Your task to perform on an android device: Open the calendar and show me this week's events? Image 0: 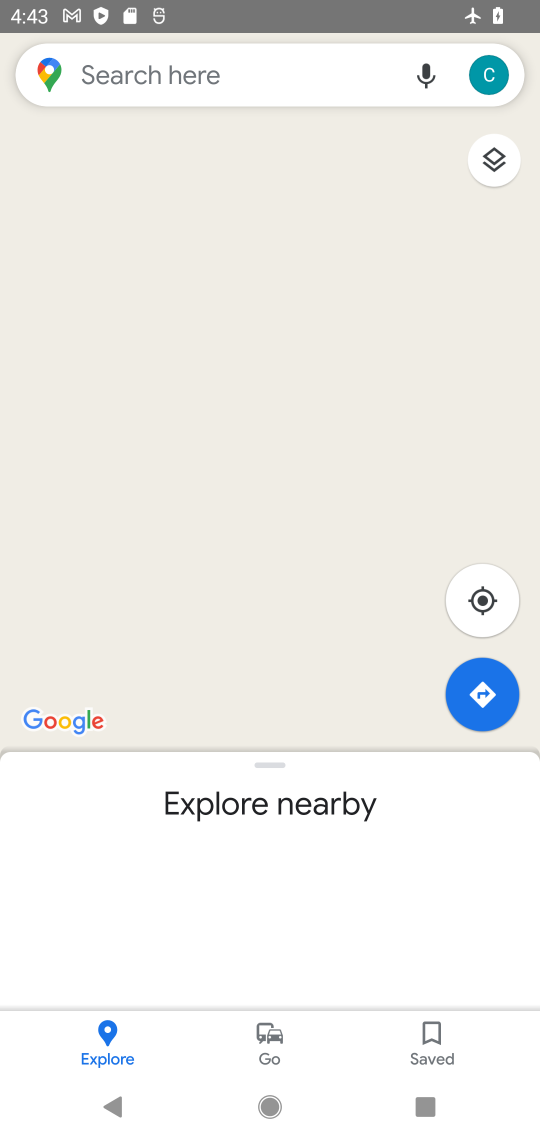
Step 0: press home button
Your task to perform on an android device: Open the calendar and show me this week's events? Image 1: 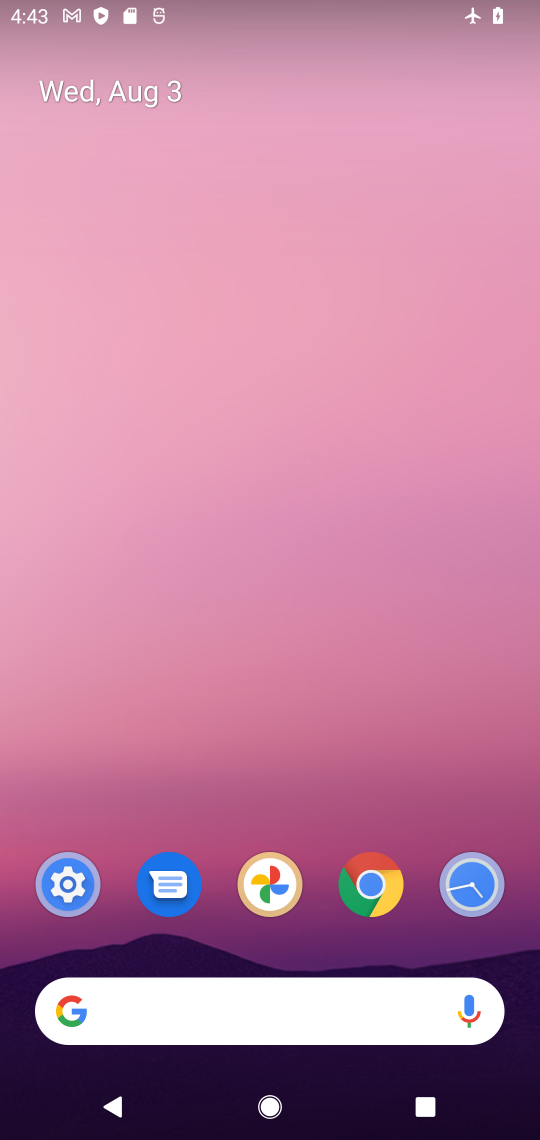
Step 1: drag from (200, 1075) to (222, 112)
Your task to perform on an android device: Open the calendar and show me this week's events? Image 2: 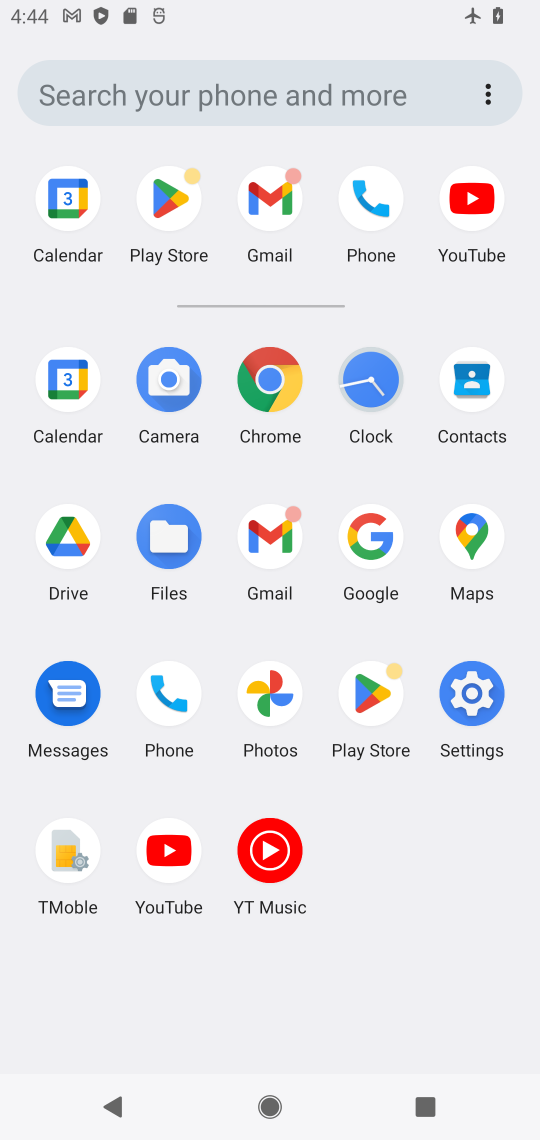
Step 2: click (474, 390)
Your task to perform on an android device: Open the calendar and show me this week's events? Image 3: 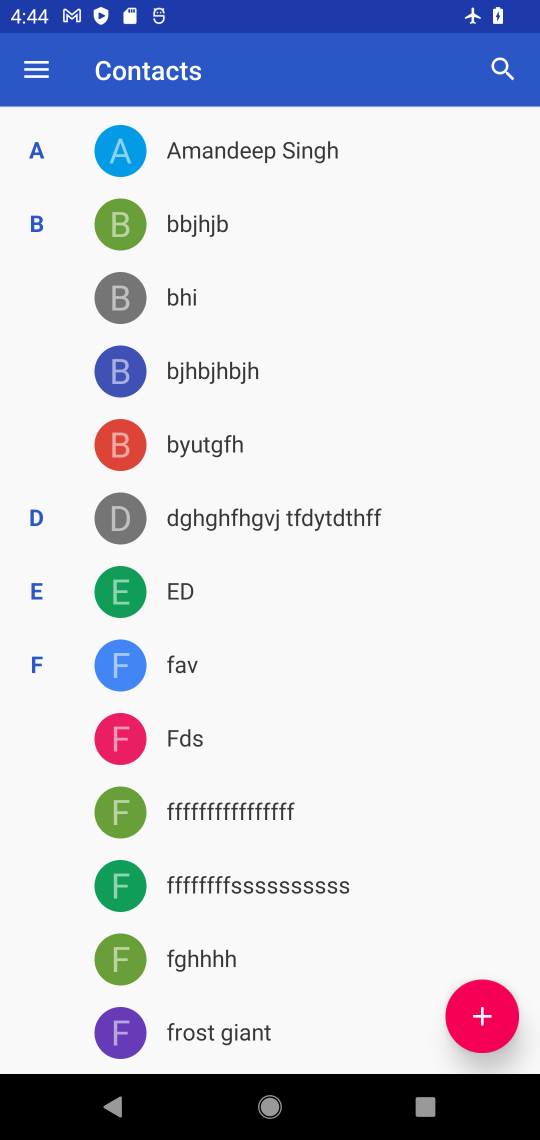
Step 3: press home button
Your task to perform on an android device: Open the calendar and show me this week's events? Image 4: 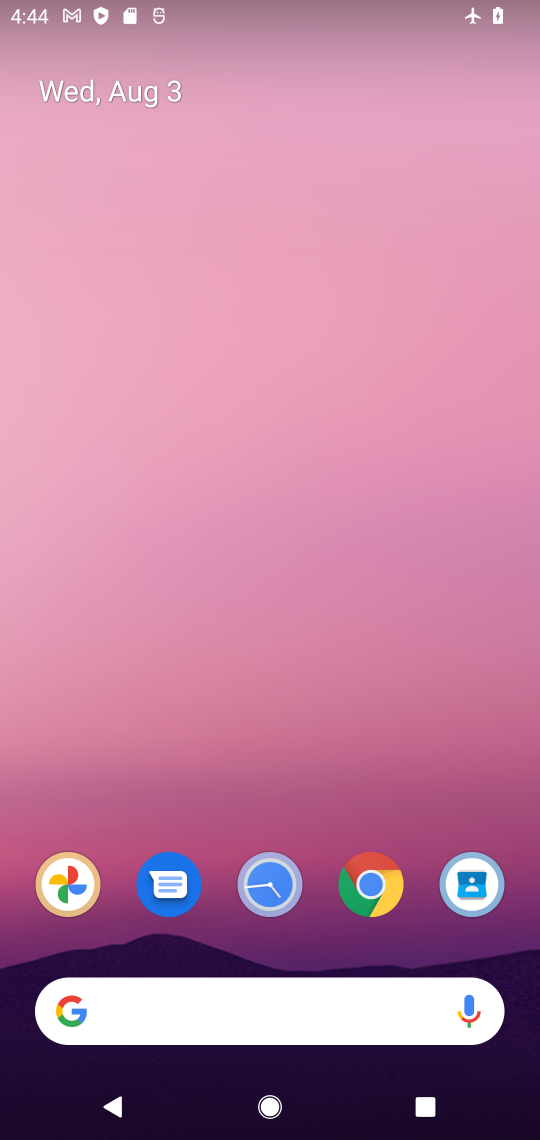
Step 4: drag from (249, 1053) to (329, 140)
Your task to perform on an android device: Open the calendar and show me this week's events? Image 5: 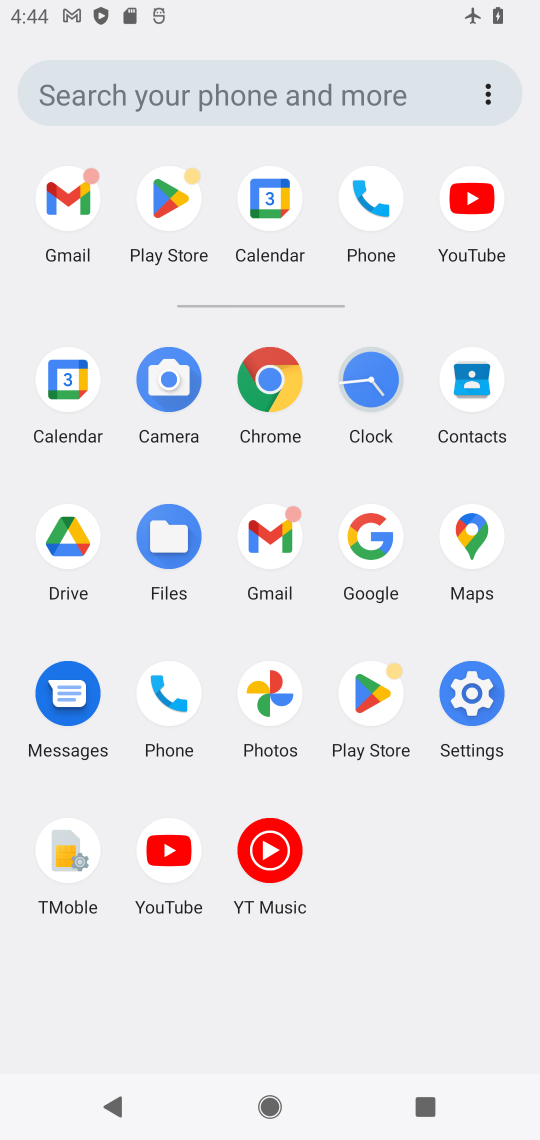
Step 5: click (89, 402)
Your task to perform on an android device: Open the calendar and show me this week's events? Image 6: 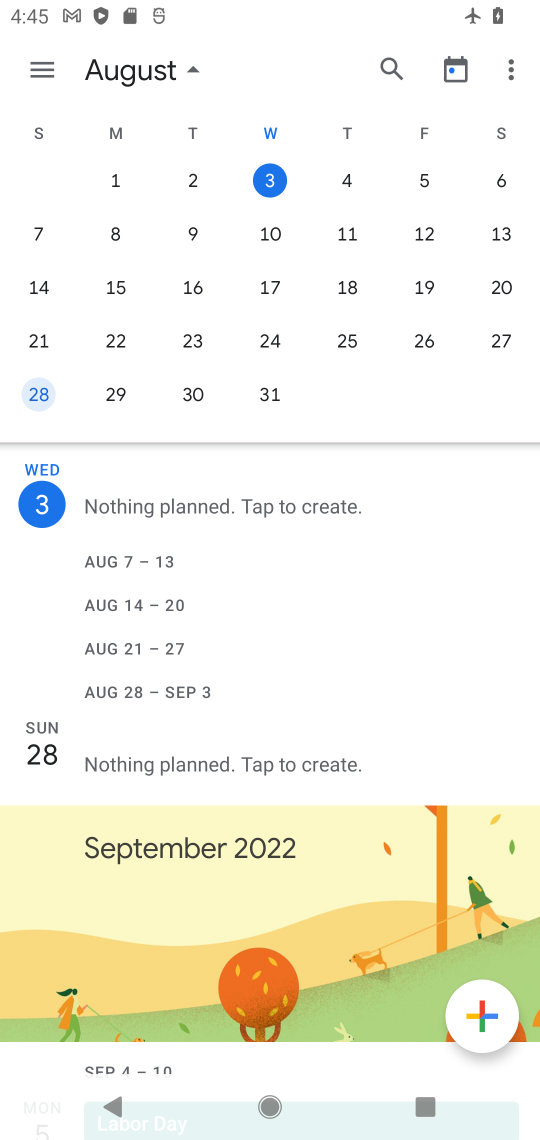
Step 6: task complete